Your task to perform on an android device: turn off smart reply in the gmail app Image 0: 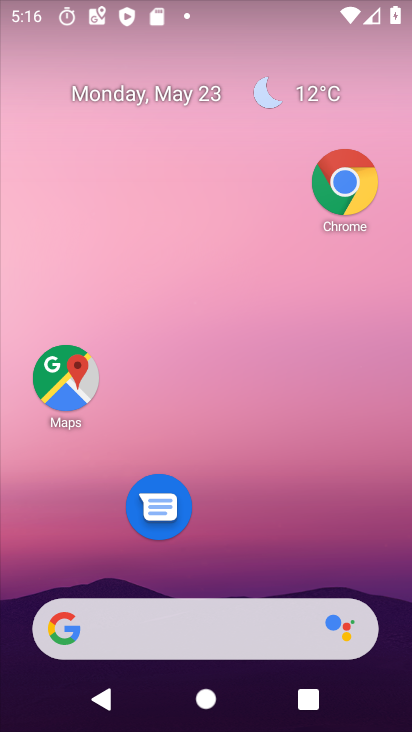
Step 0: drag from (216, 376) to (182, 110)
Your task to perform on an android device: turn off smart reply in the gmail app Image 1: 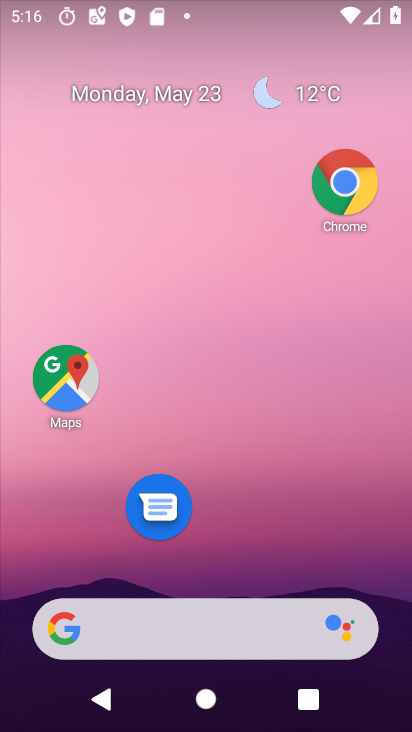
Step 1: drag from (231, 543) to (340, 55)
Your task to perform on an android device: turn off smart reply in the gmail app Image 2: 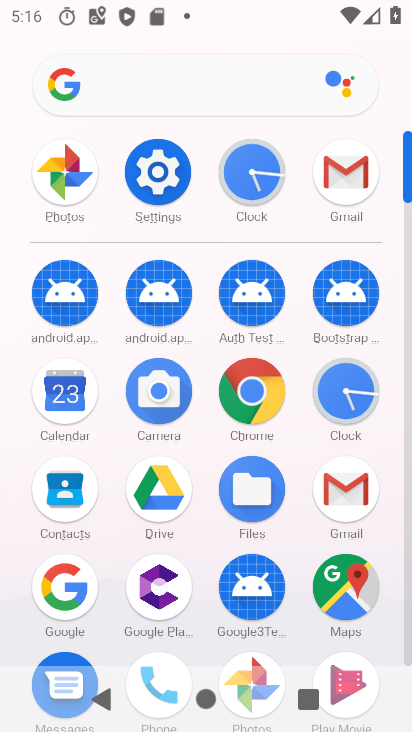
Step 2: click (333, 255)
Your task to perform on an android device: turn off smart reply in the gmail app Image 3: 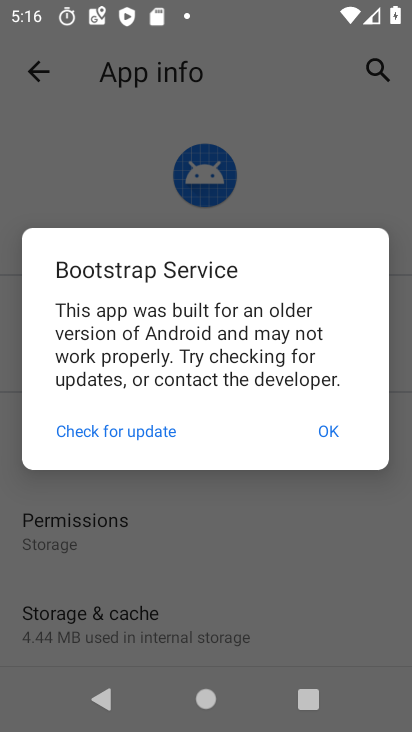
Step 3: click (320, 442)
Your task to perform on an android device: turn off smart reply in the gmail app Image 4: 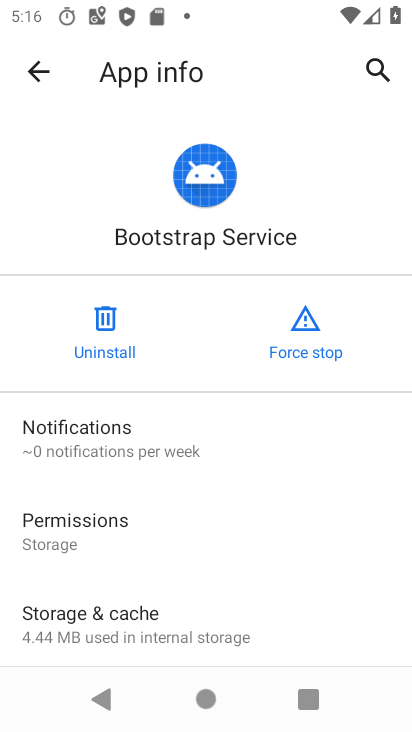
Step 4: click (55, 69)
Your task to perform on an android device: turn off smart reply in the gmail app Image 5: 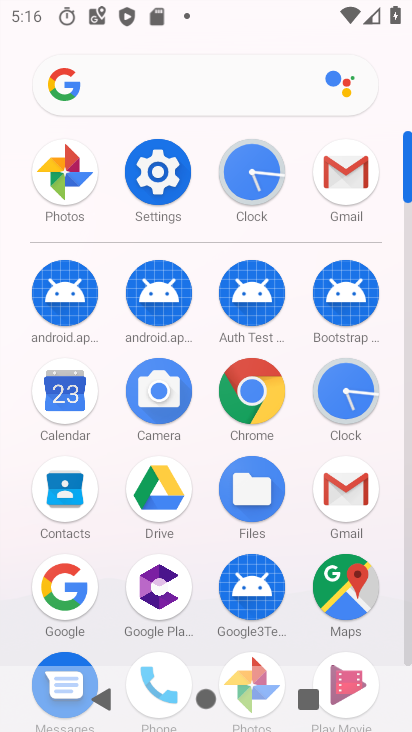
Step 5: click (339, 501)
Your task to perform on an android device: turn off smart reply in the gmail app Image 6: 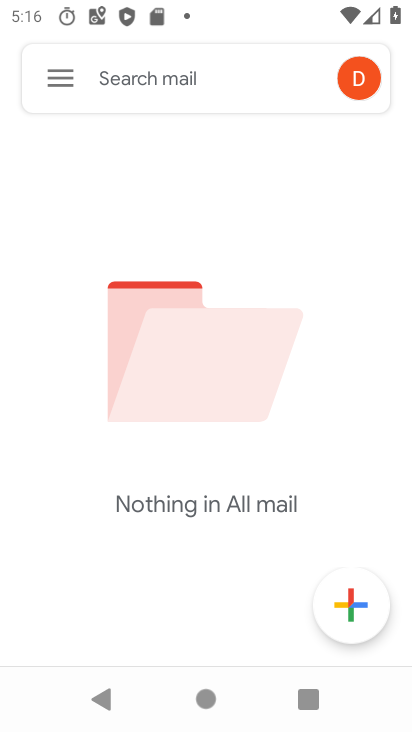
Step 6: click (85, 63)
Your task to perform on an android device: turn off smart reply in the gmail app Image 7: 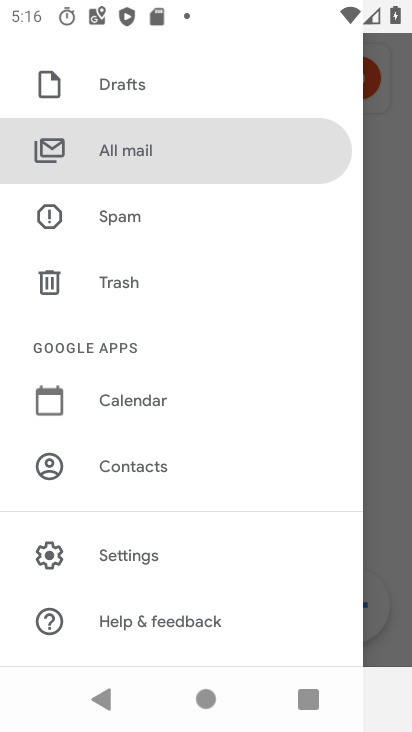
Step 7: click (105, 560)
Your task to perform on an android device: turn off smart reply in the gmail app Image 8: 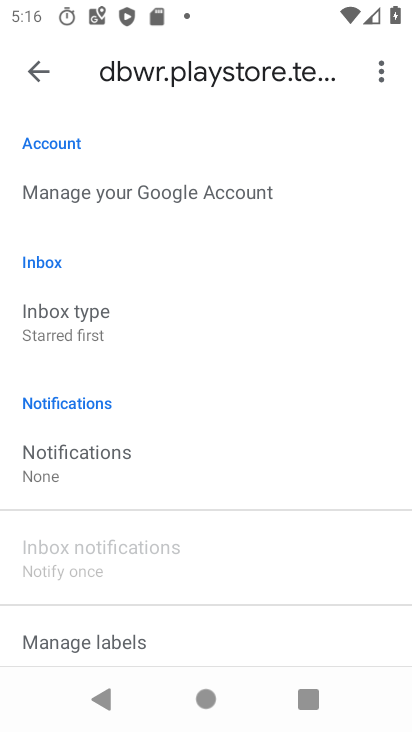
Step 8: drag from (170, 424) to (187, 182)
Your task to perform on an android device: turn off smart reply in the gmail app Image 9: 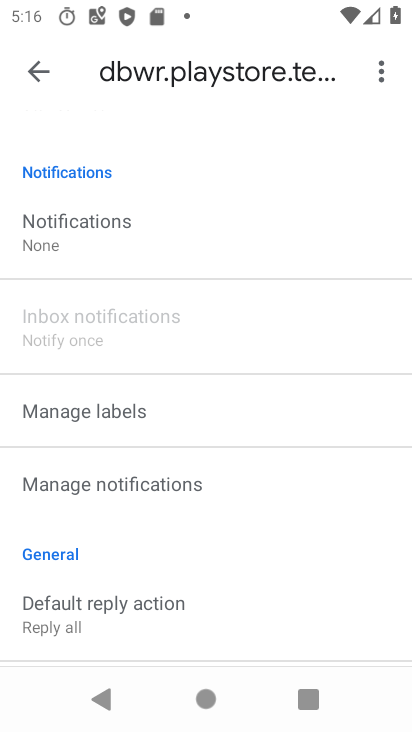
Step 9: drag from (203, 533) to (288, 142)
Your task to perform on an android device: turn off smart reply in the gmail app Image 10: 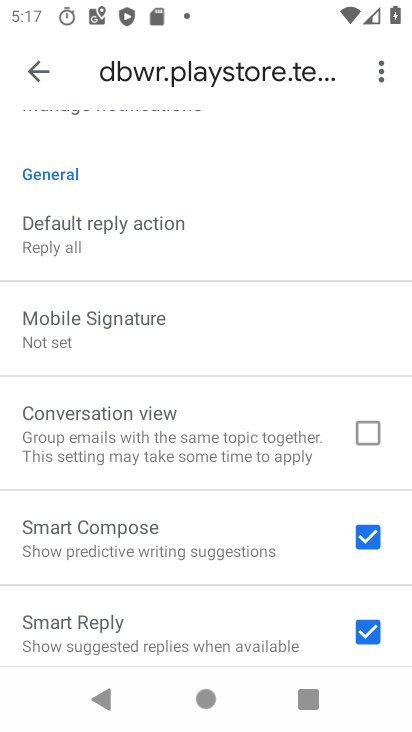
Step 10: click (382, 623)
Your task to perform on an android device: turn off smart reply in the gmail app Image 11: 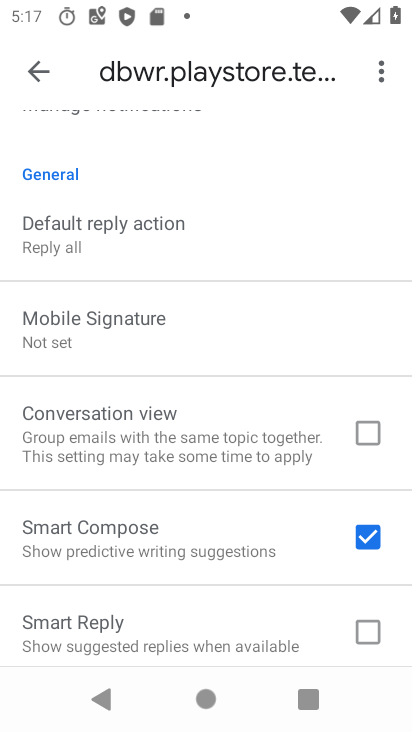
Step 11: task complete